Your task to perform on an android device: turn off location Image 0: 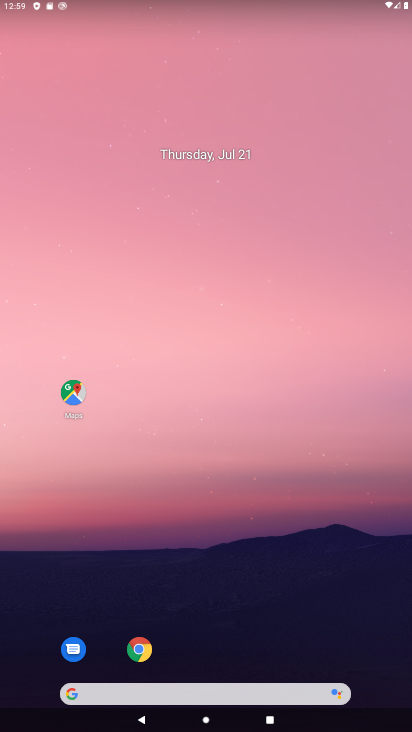
Step 0: drag from (269, 640) to (220, 127)
Your task to perform on an android device: turn off location Image 1: 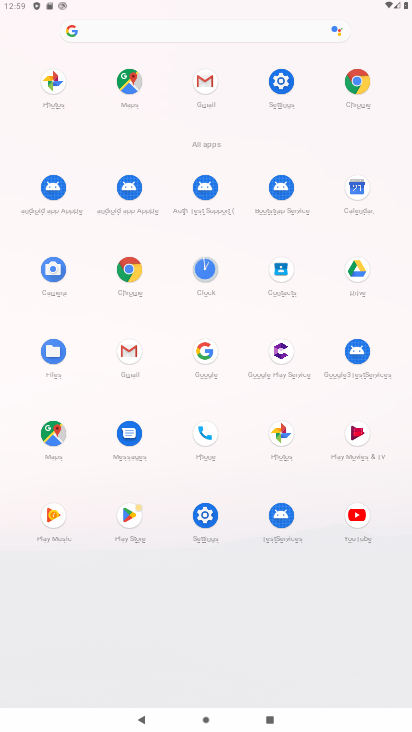
Step 1: click (284, 85)
Your task to perform on an android device: turn off location Image 2: 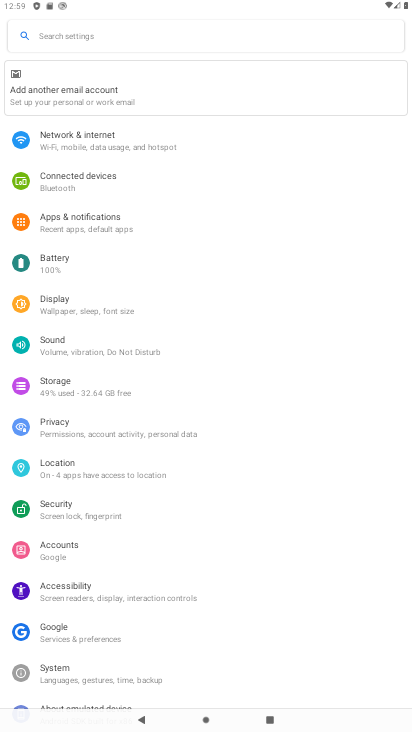
Step 2: click (106, 460)
Your task to perform on an android device: turn off location Image 3: 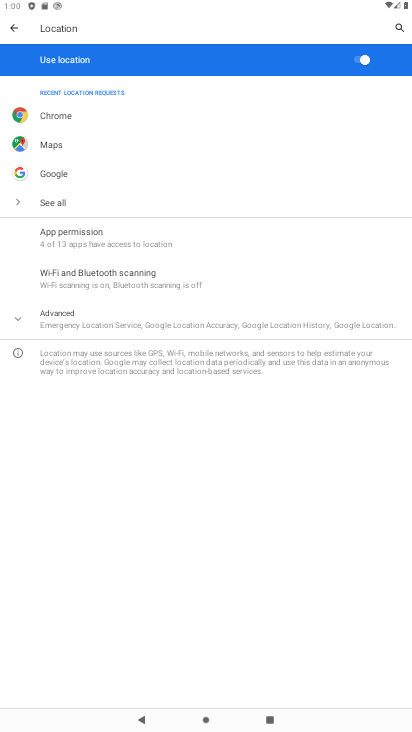
Step 3: click (367, 57)
Your task to perform on an android device: turn off location Image 4: 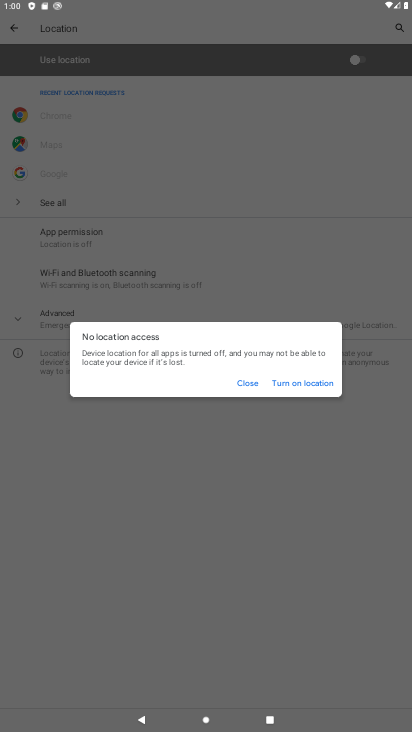
Step 4: task complete